Your task to perform on an android device: turn on airplane mode Image 0: 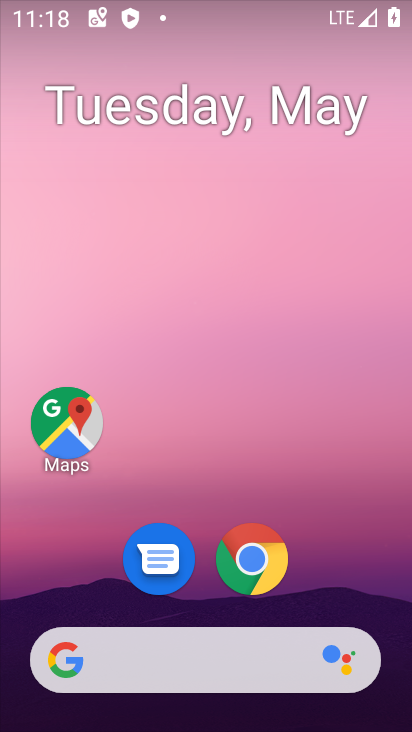
Step 0: drag from (318, 581) to (300, 134)
Your task to perform on an android device: turn on airplane mode Image 1: 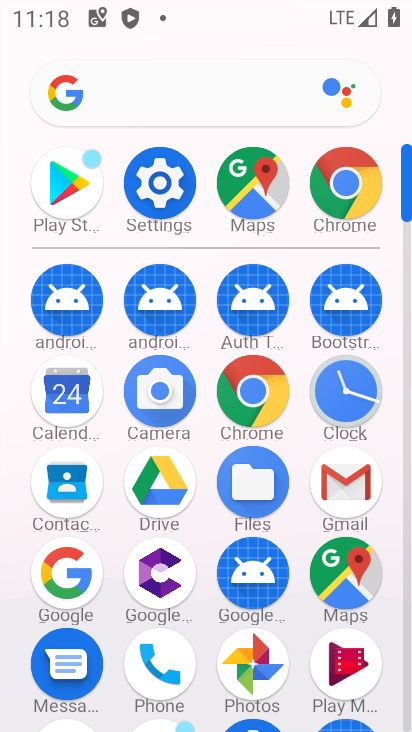
Step 1: click (161, 213)
Your task to perform on an android device: turn on airplane mode Image 2: 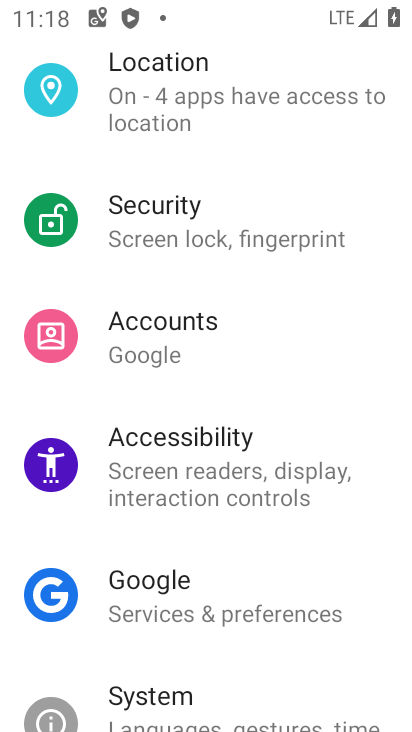
Step 2: drag from (204, 188) to (244, 499)
Your task to perform on an android device: turn on airplane mode Image 3: 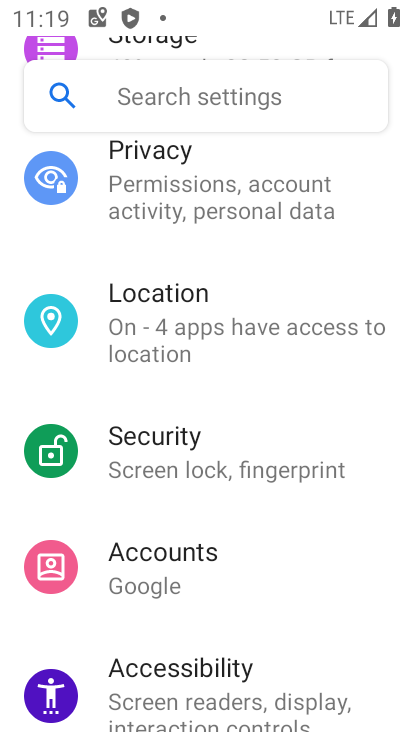
Step 3: drag from (210, 231) to (232, 617)
Your task to perform on an android device: turn on airplane mode Image 4: 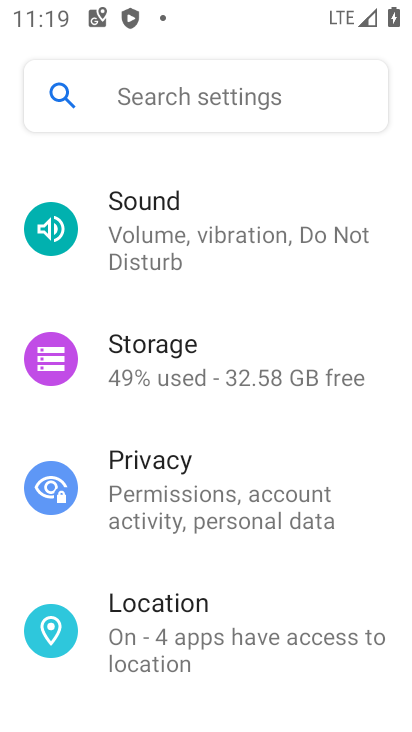
Step 4: drag from (218, 252) to (233, 668)
Your task to perform on an android device: turn on airplane mode Image 5: 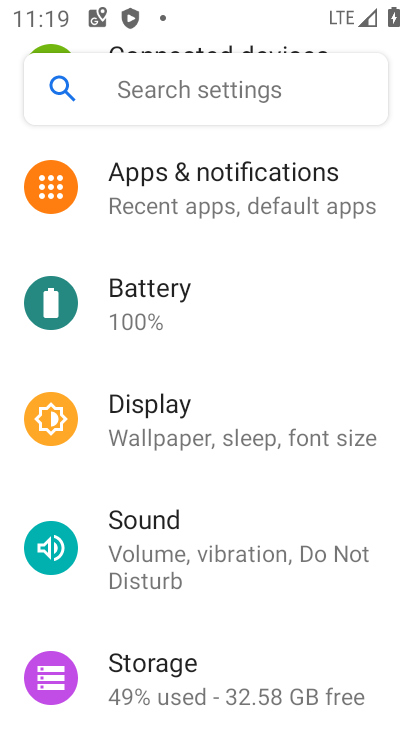
Step 5: drag from (230, 378) to (221, 672)
Your task to perform on an android device: turn on airplane mode Image 6: 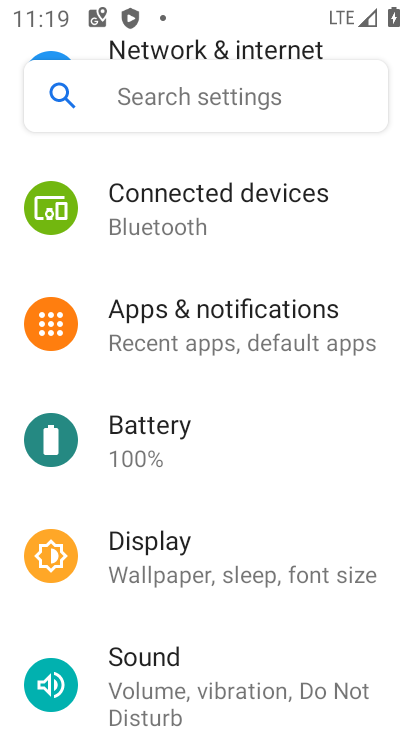
Step 6: drag from (219, 290) to (248, 606)
Your task to perform on an android device: turn on airplane mode Image 7: 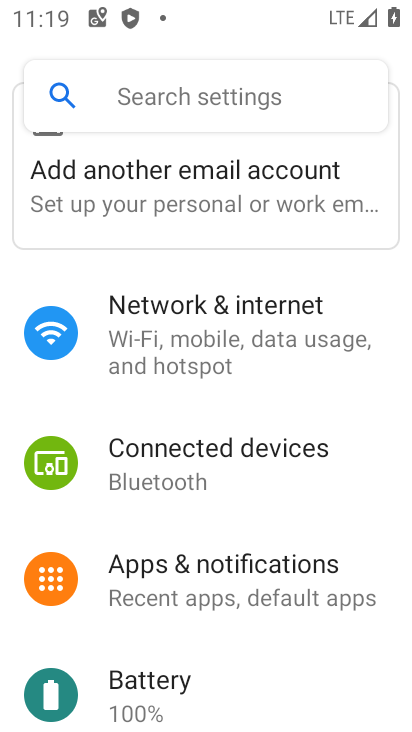
Step 7: click (250, 366)
Your task to perform on an android device: turn on airplane mode Image 8: 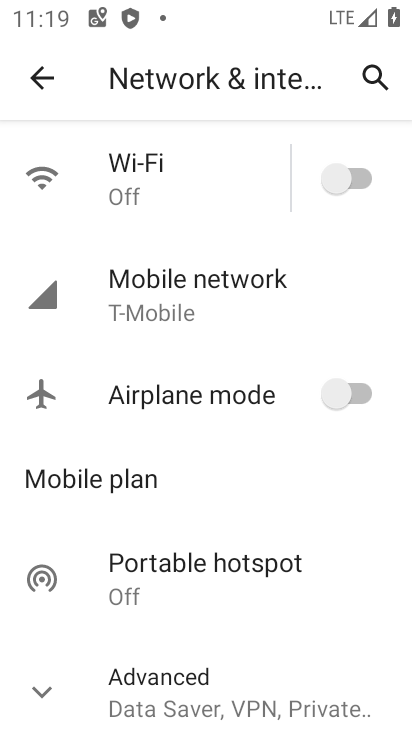
Step 8: click (351, 392)
Your task to perform on an android device: turn on airplane mode Image 9: 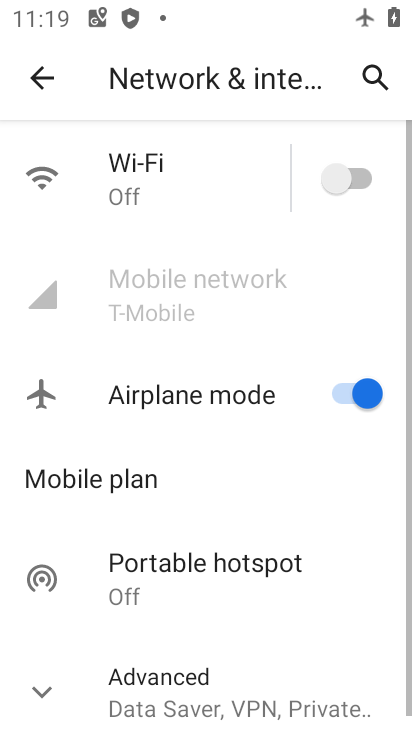
Step 9: task complete